Your task to perform on an android device: Turn off the flashlight Image 0: 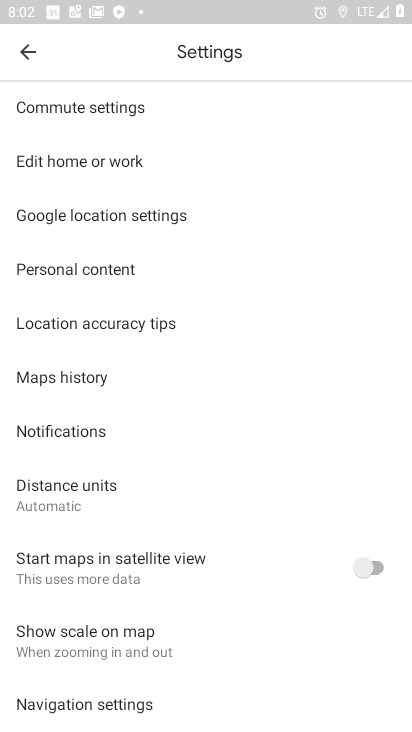
Step 0: drag from (285, 7) to (99, 690)
Your task to perform on an android device: Turn off the flashlight Image 1: 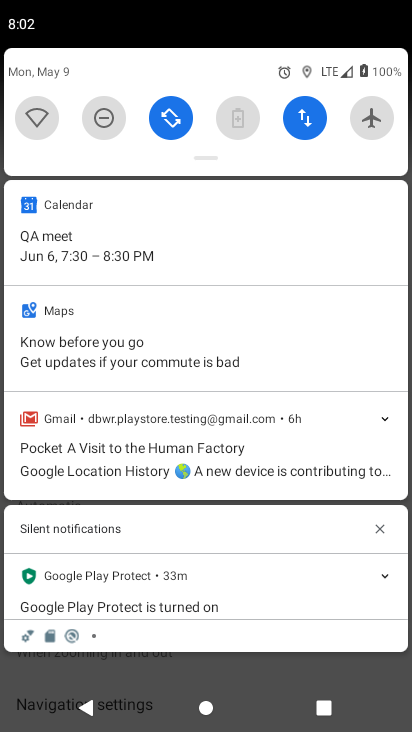
Step 1: drag from (230, 88) to (217, 655)
Your task to perform on an android device: Turn off the flashlight Image 2: 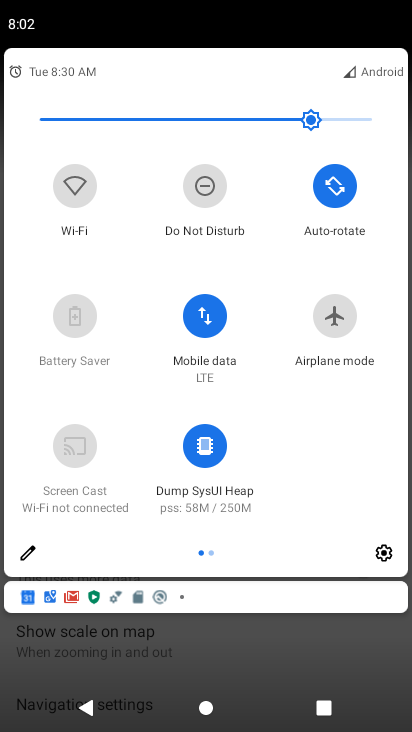
Step 2: click (378, 557)
Your task to perform on an android device: Turn off the flashlight Image 3: 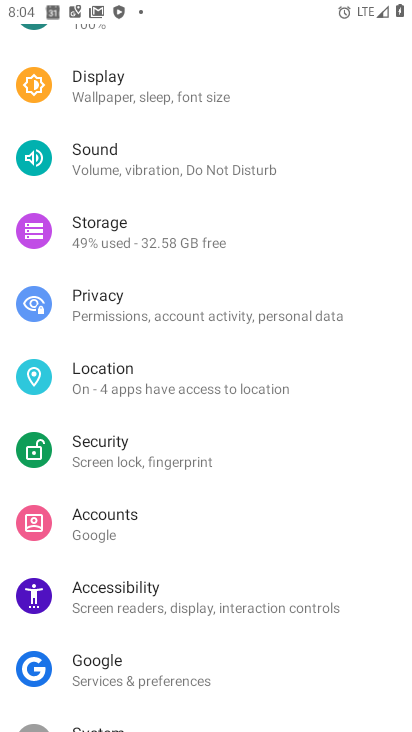
Step 3: task complete